Your task to perform on an android device: Go to Amazon Image 0: 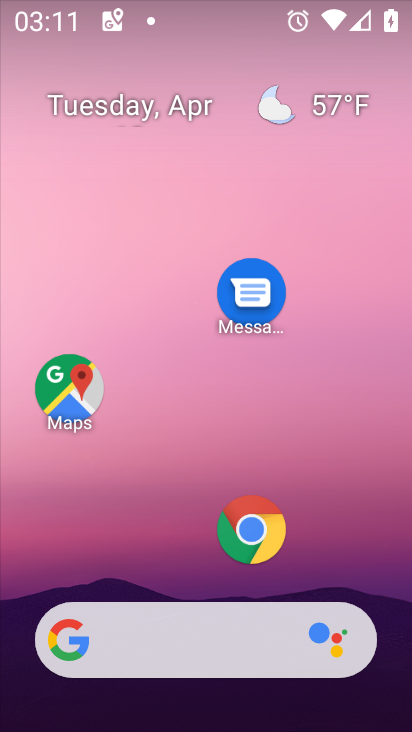
Step 0: click (252, 531)
Your task to perform on an android device: Go to Amazon Image 1: 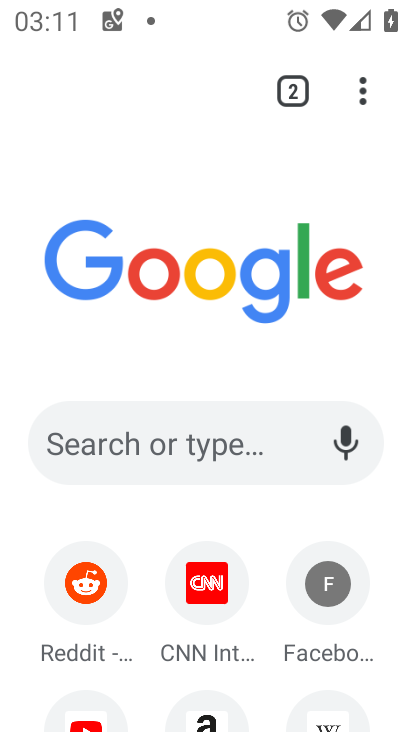
Step 1: click (204, 717)
Your task to perform on an android device: Go to Amazon Image 2: 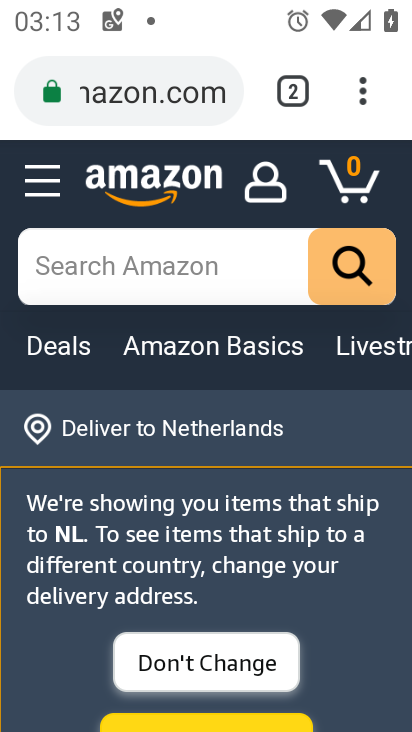
Step 2: task complete